Your task to perform on an android device: Open Google Chrome and click the shortcut for Amazon.com Image 0: 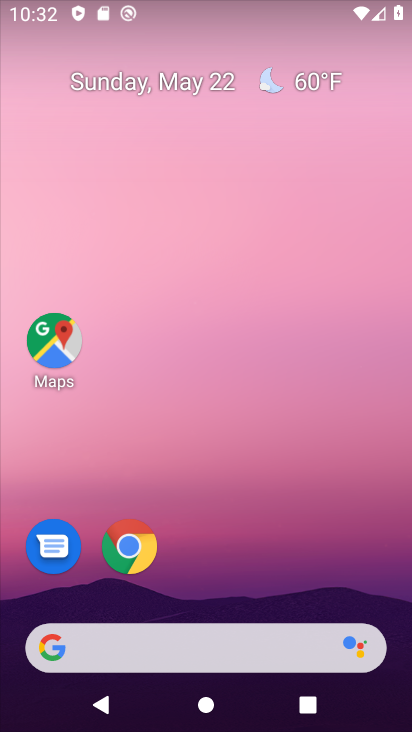
Step 0: click (126, 551)
Your task to perform on an android device: Open Google Chrome and click the shortcut for Amazon.com Image 1: 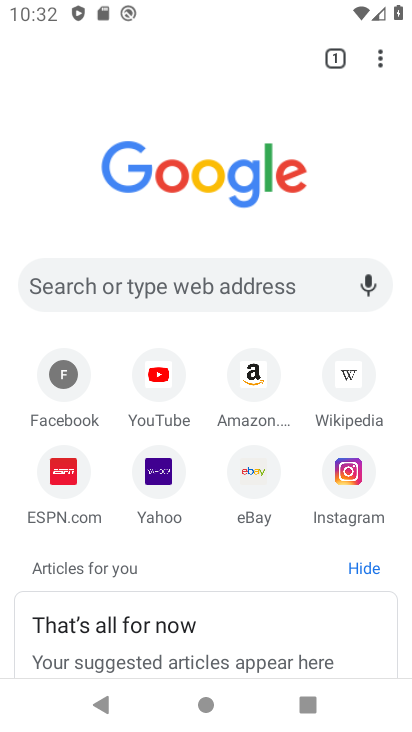
Step 1: click (250, 378)
Your task to perform on an android device: Open Google Chrome and click the shortcut for Amazon.com Image 2: 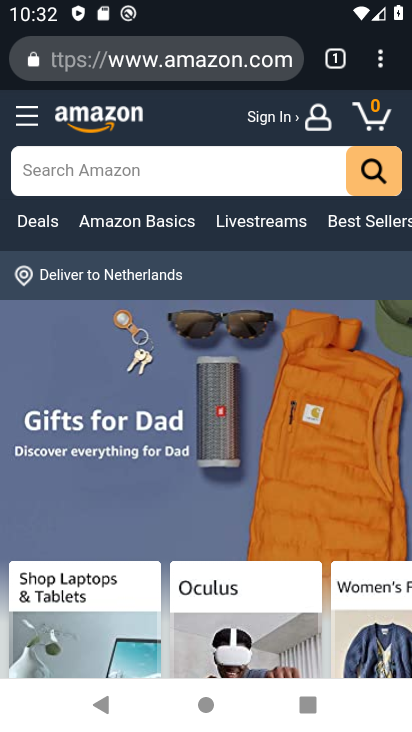
Step 2: task complete